Your task to perform on an android device: Clear the cart on bestbuy. Add "razer blade" to the cart on bestbuy, then select checkout. Image 0: 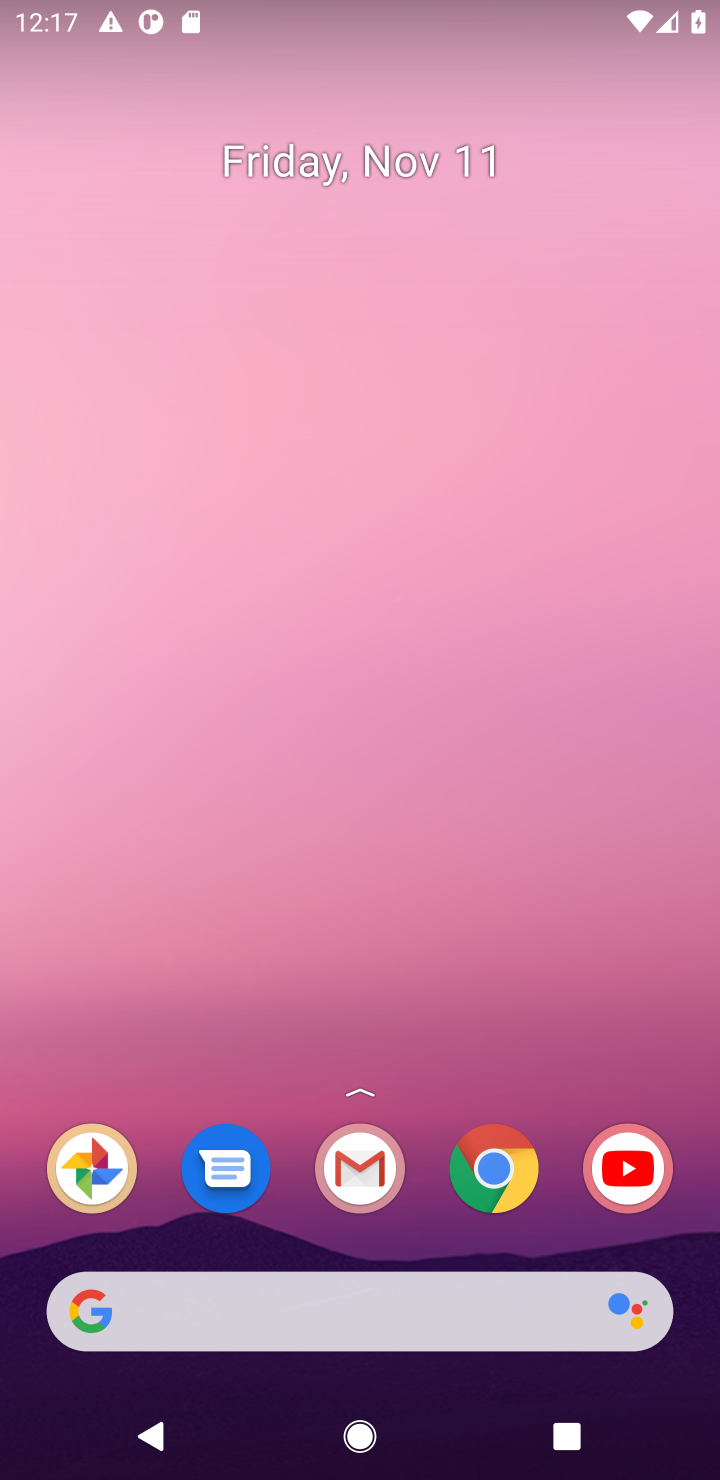
Step 0: click (492, 1179)
Your task to perform on an android device: Clear the cart on bestbuy. Add "razer blade" to the cart on bestbuy, then select checkout. Image 1: 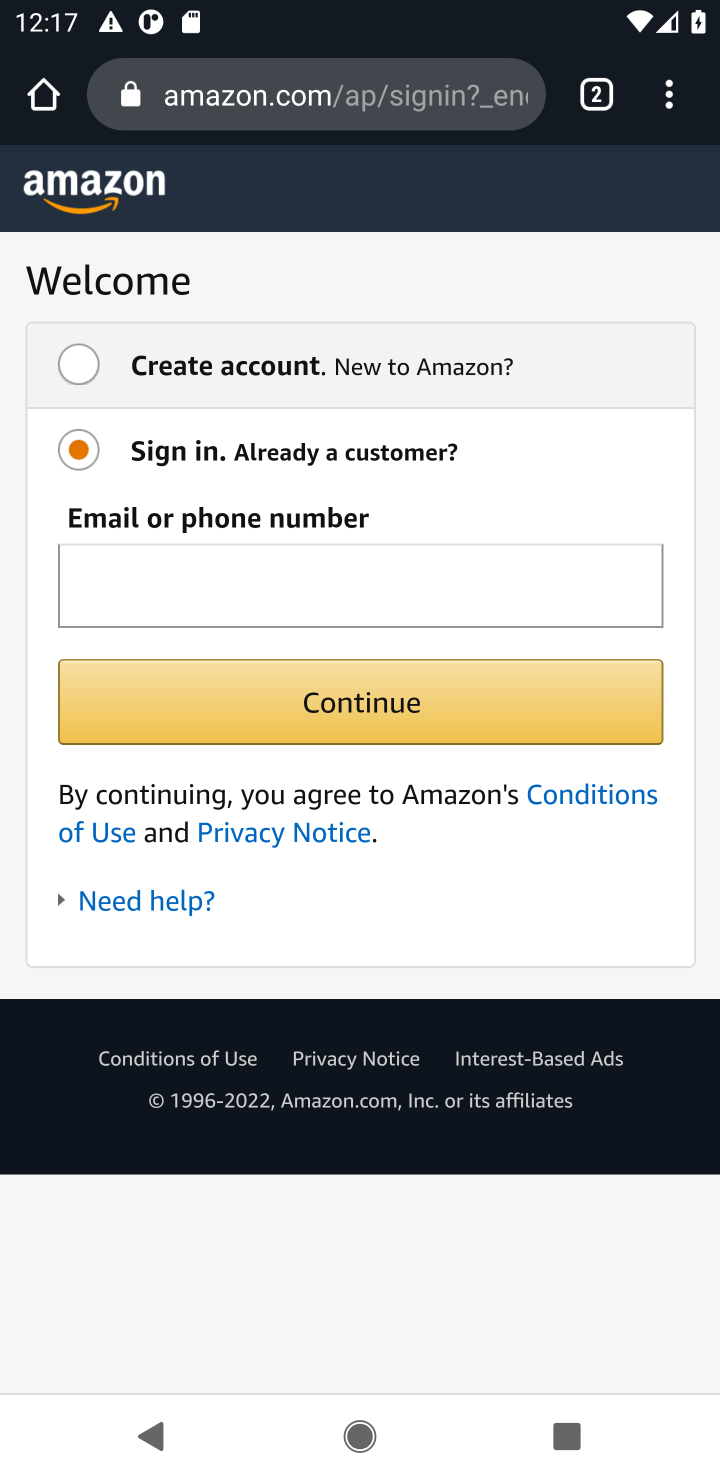
Step 1: click (299, 90)
Your task to perform on an android device: Clear the cart on bestbuy. Add "razer blade" to the cart on bestbuy, then select checkout. Image 2: 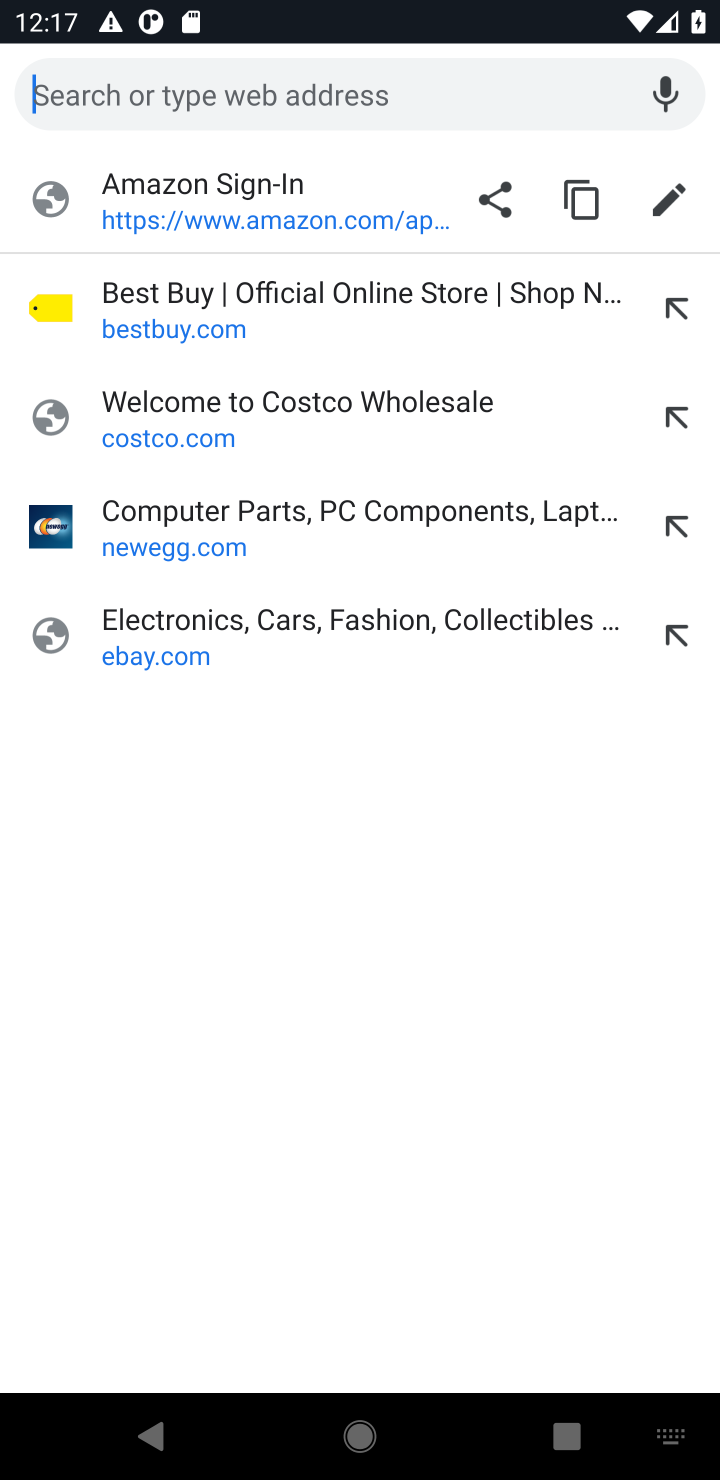
Step 2: click (166, 334)
Your task to perform on an android device: Clear the cart on bestbuy. Add "razer blade" to the cart on bestbuy, then select checkout. Image 3: 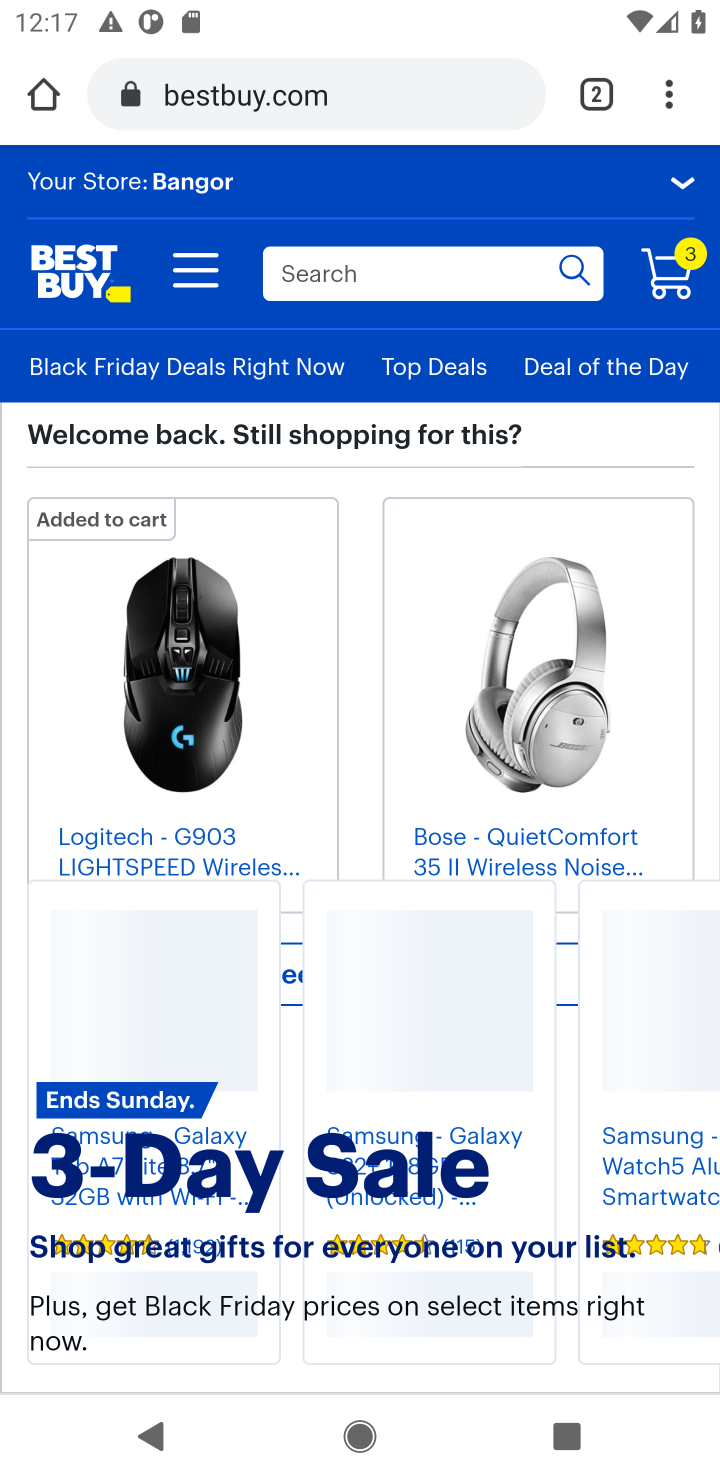
Step 3: click (678, 277)
Your task to perform on an android device: Clear the cart on bestbuy. Add "razer blade" to the cart on bestbuy, then select checkout. Image 4: 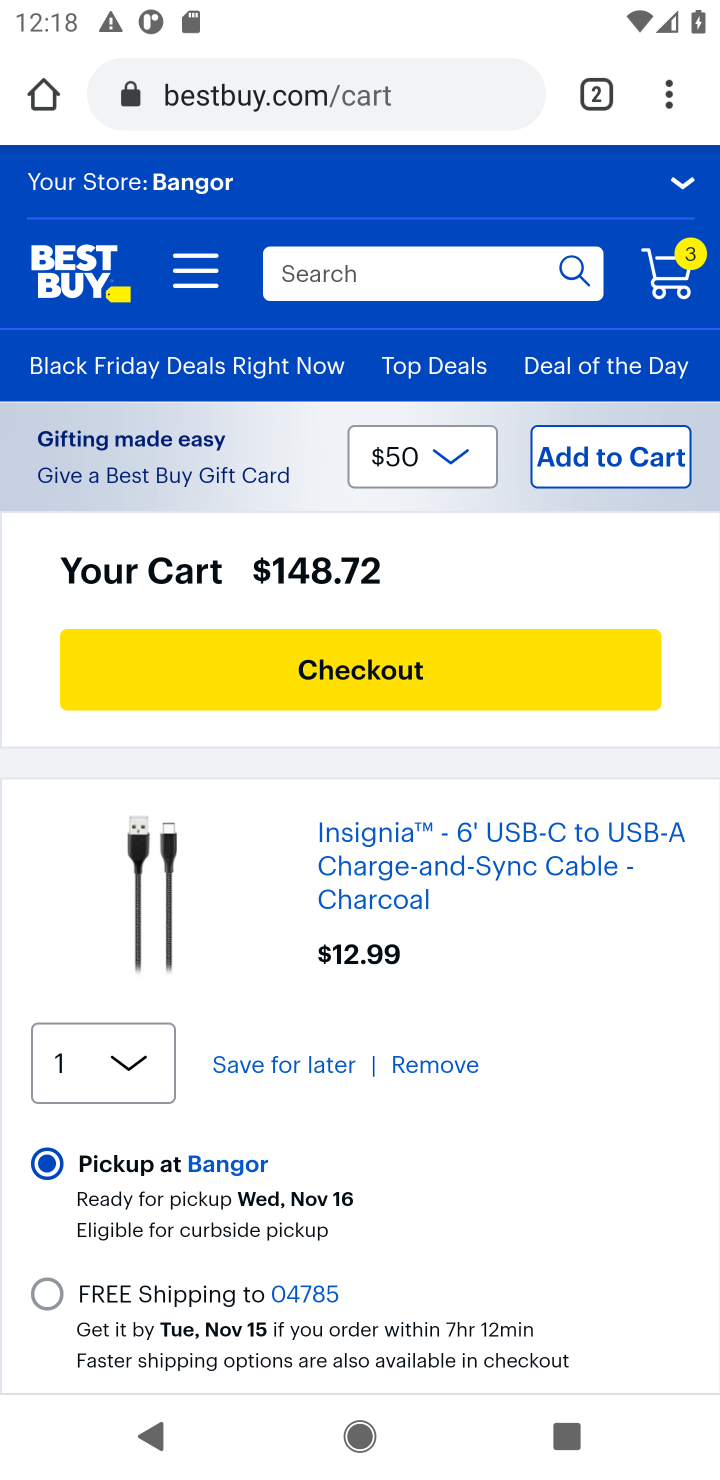
Step 4: click (426, 1071)
Your task to perform on an android device: Clear the cart on bestbuy. Add "razer blade" to the cart on bestbuy, then select checkout. Image 5: 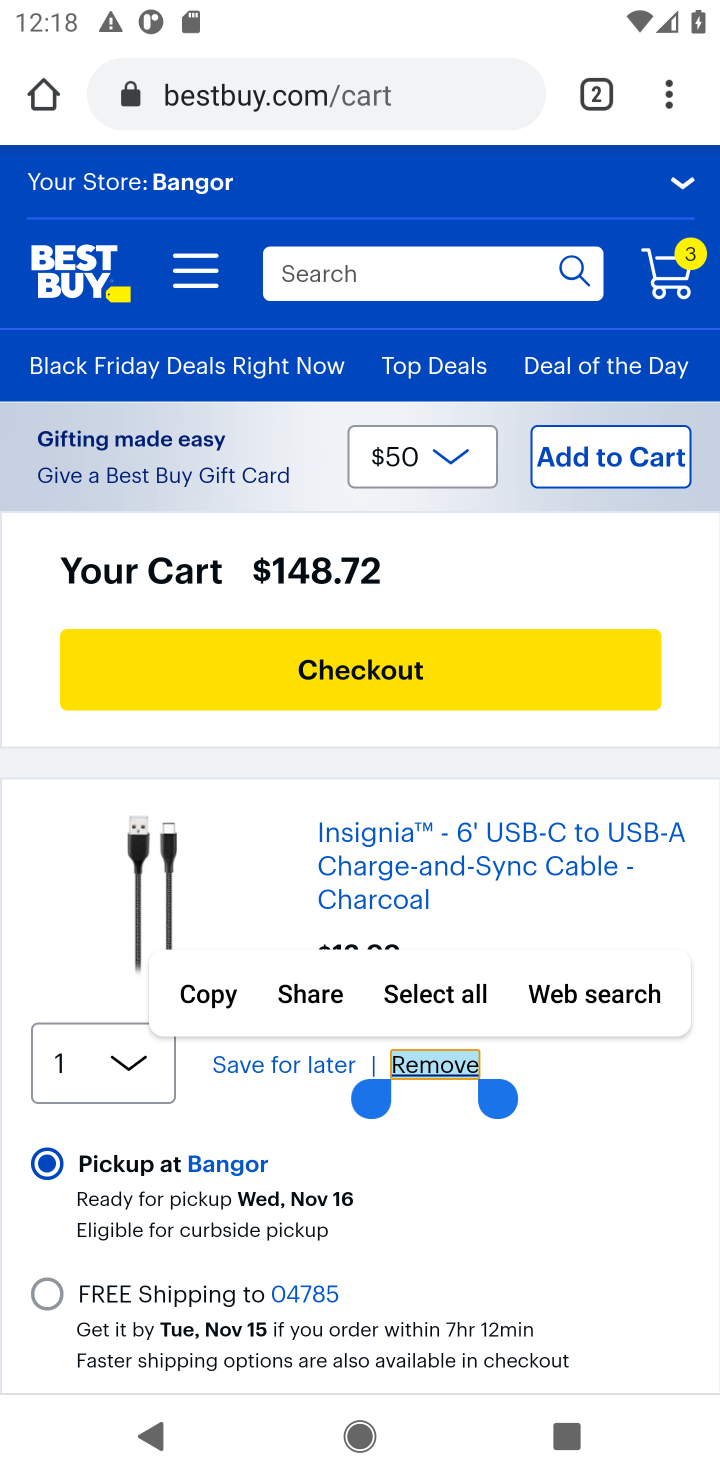
Step 5: click (426, 1071)
Your task to perform on an android device: Clear the cart on bestbuy. Add "razer blade" to the cart on bestbuy, then select checkout. Image 6: 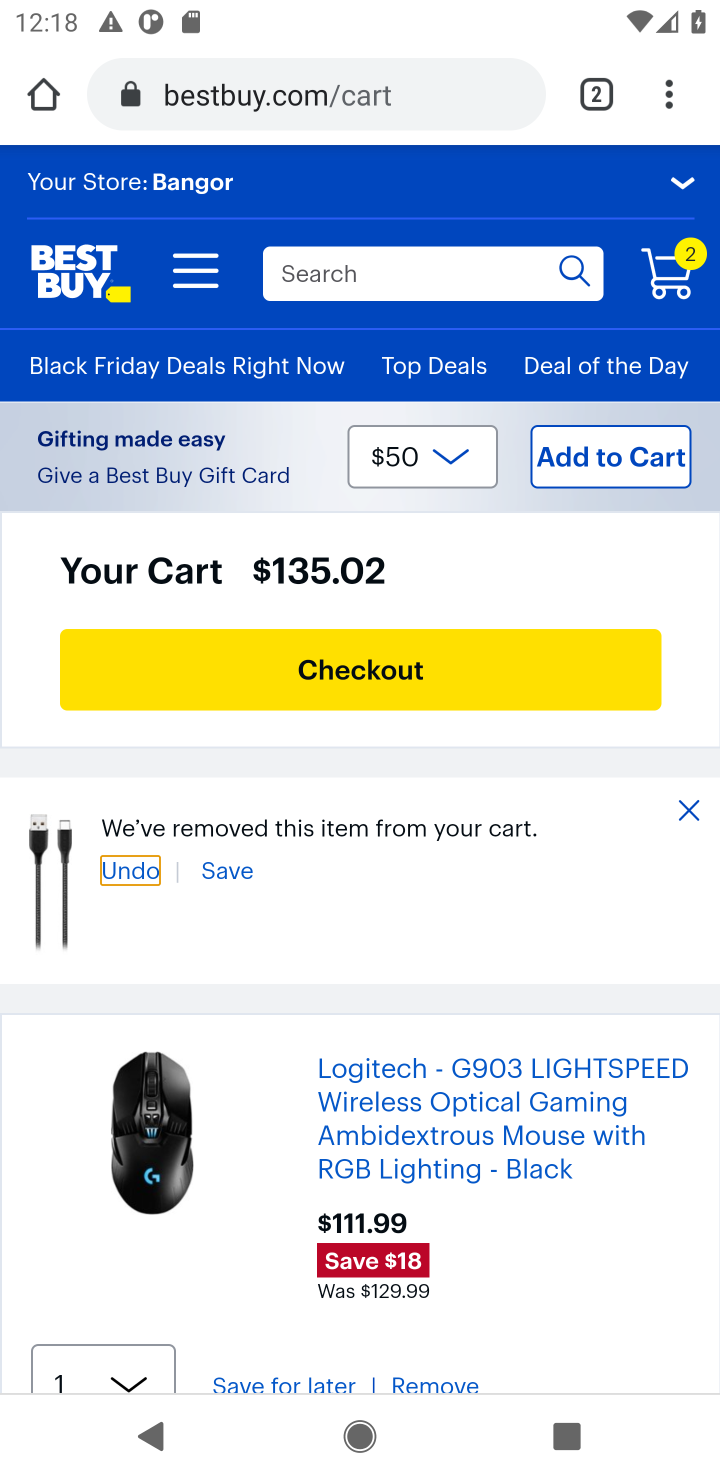
Step 6: drag from (297, 890) to (299, 423)
Your task to perform on an android device: Clear the cart on bestbuy. Add "razer blade" to the cart on bestbuy, then select checkout. Image 7: 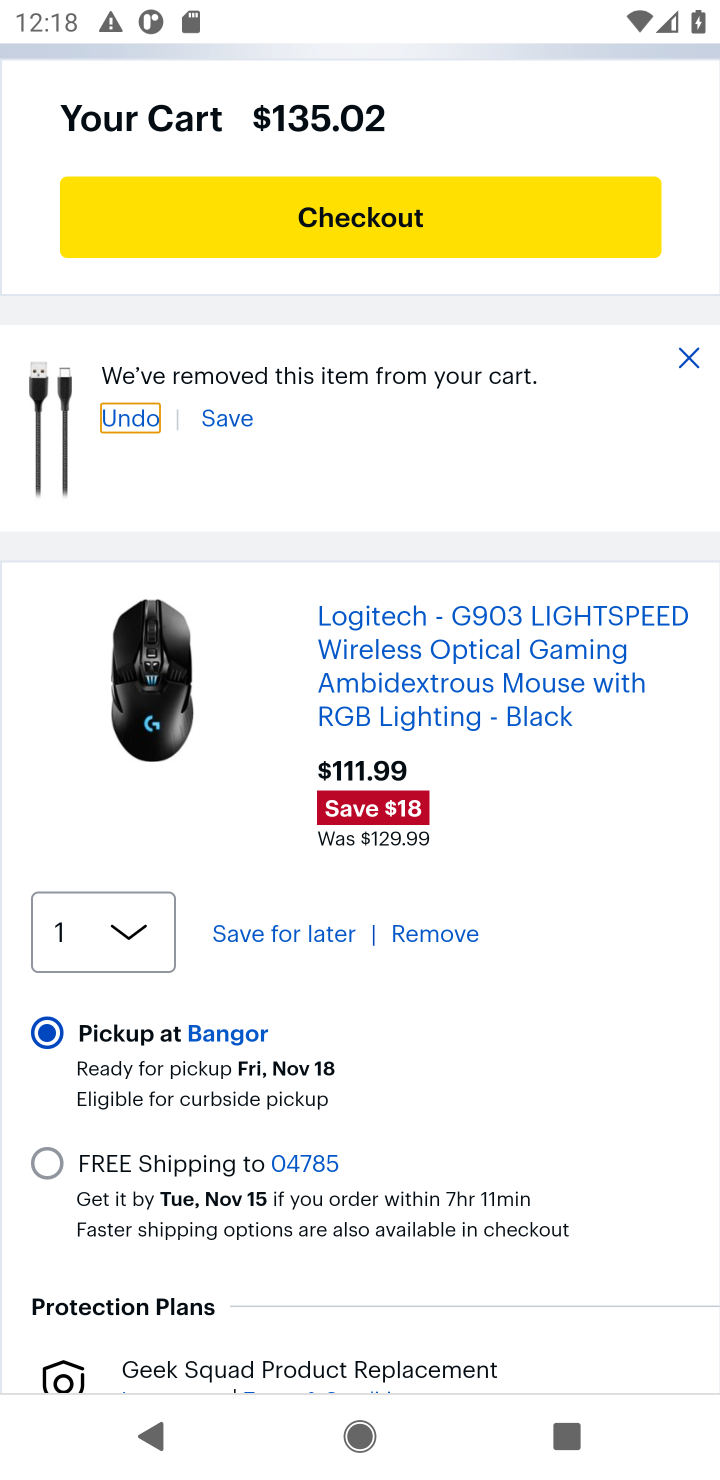
Step 7: click (416, 940)
Your task to perform on an android device: Clear the cart on bestbuy. Add "razer blade" to the cart on bestbuy, then select checkout. Image 8: 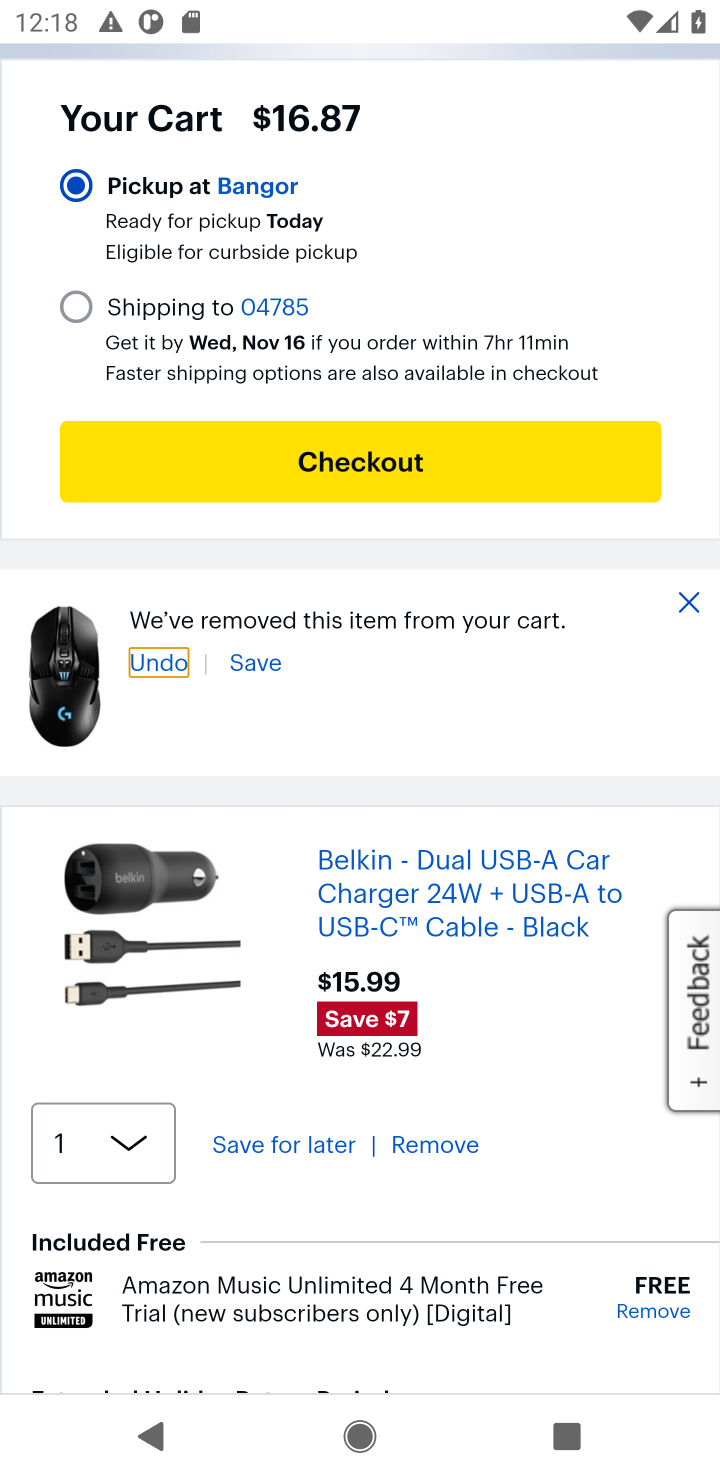
Step 8: click (426, 1153)
Your task to perform on an android device: Clear the cart on bestbuy. Add "razer blade" to the cart on bestbuy, then select checkout. Image 9: 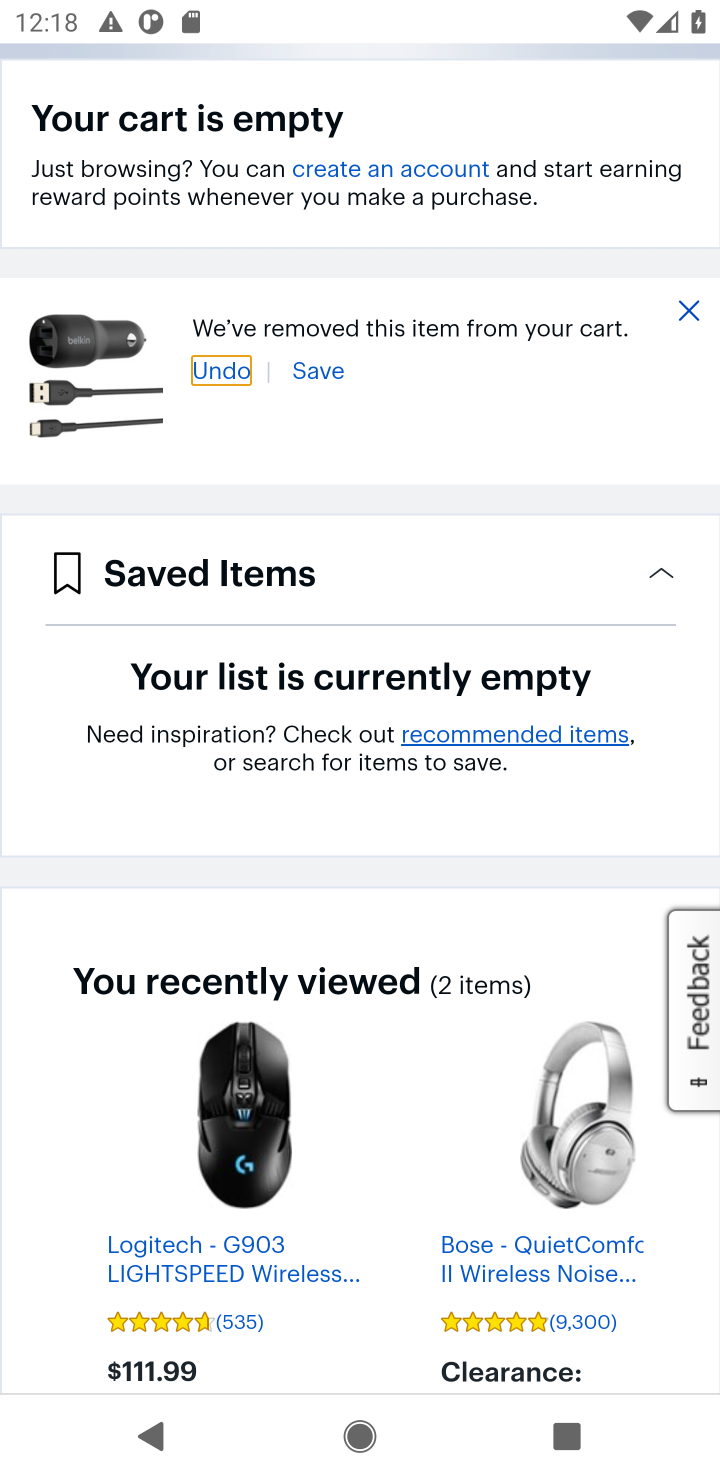
Step 9: drag from (513, 812) to (493, 915)
Your task to perform on an android device: Clear the cart on bestbuy. Add "razer blade" to the cart on bestbuy, then select checkout. Image 10: 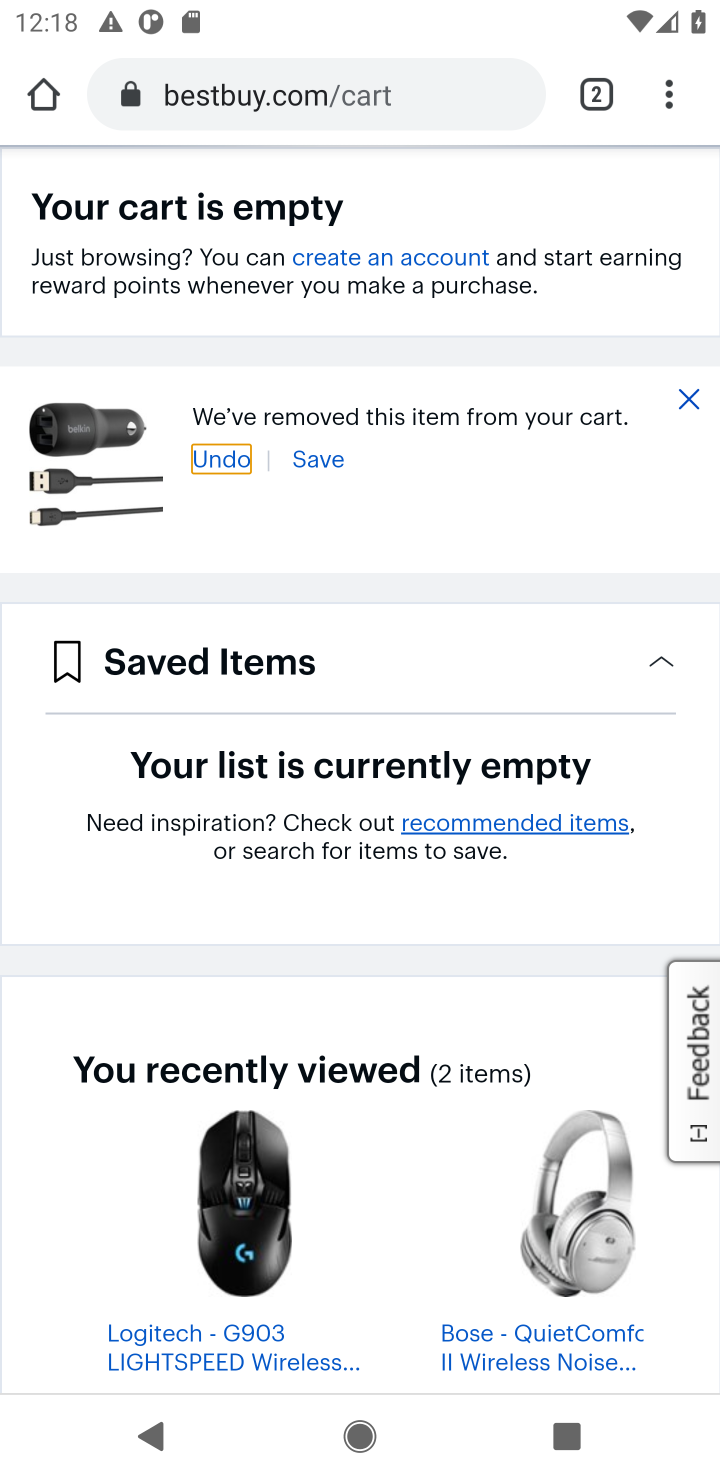
Step 10: drag from (371, 268) to (380, 539)
Your task to perform on an android device: Clear the cart on bestbuy. Add "razer blade" to the cart on bestbuy, then select checkout. Image 11: 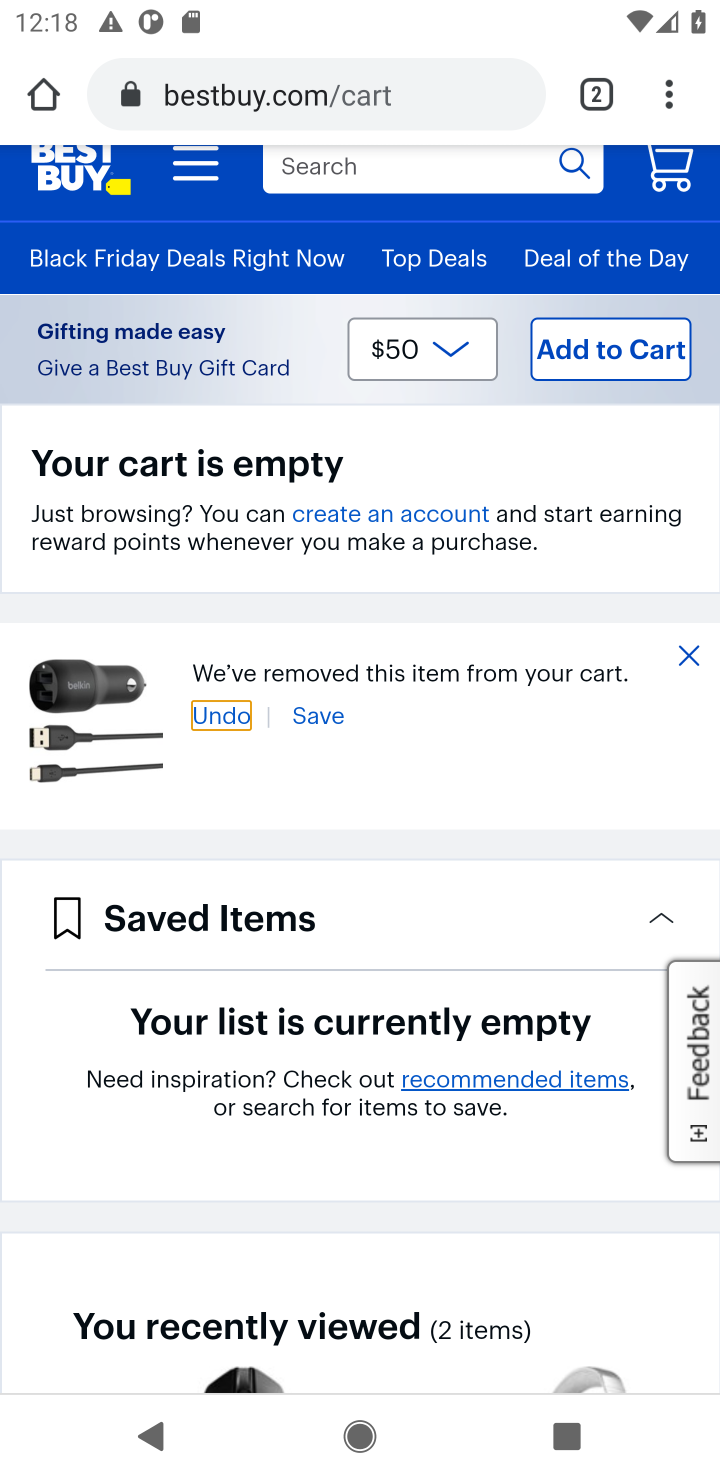
Step 11: drag from (361, 219) to (382, 400)
Your task to perform on an android device: Clear the cart on bestbuy. Add "razer blade" to the cart on bestbuy, then select checkout. Image 12: 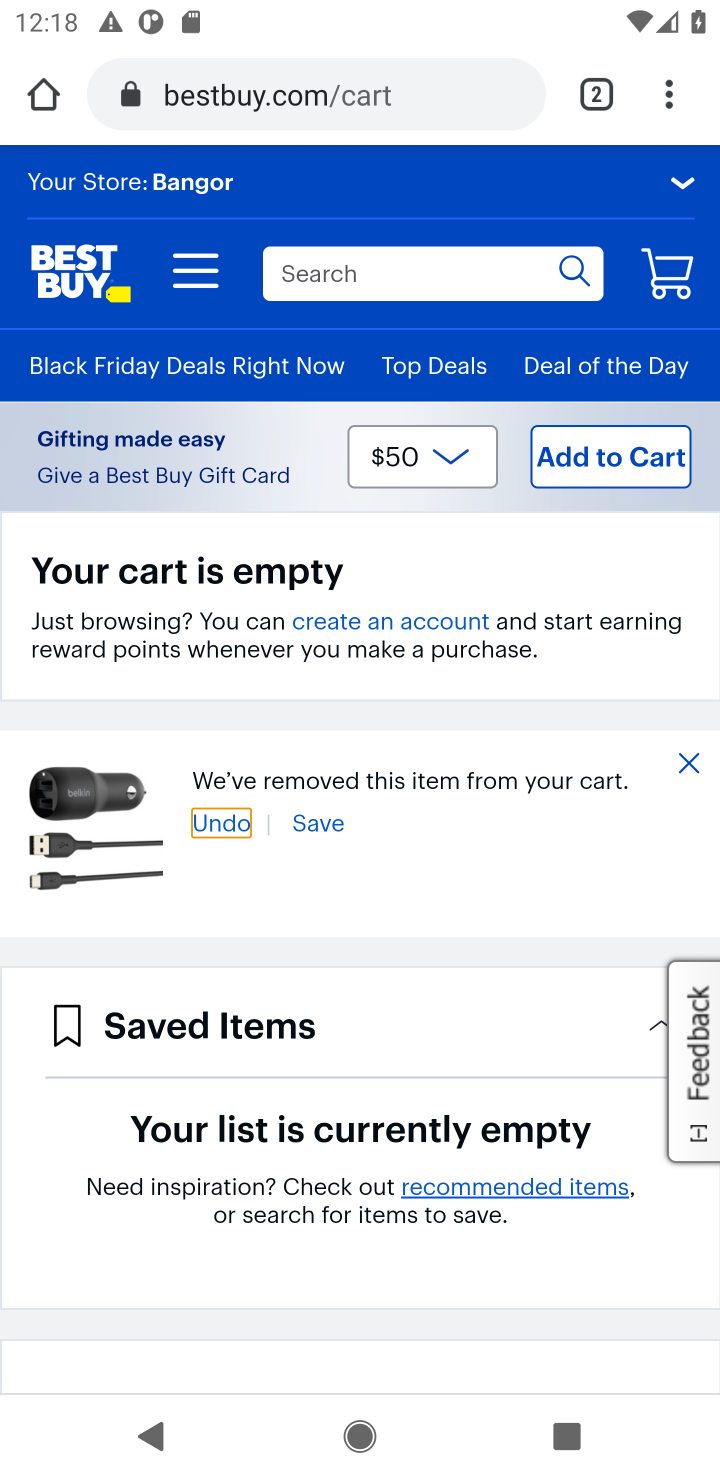
Step 12: click (336, 274)
Your task to perform on an android device: Clear the cart on bestbuy. Add "razer blade" to the cart on bestbuy, then select checkout. Image 13: 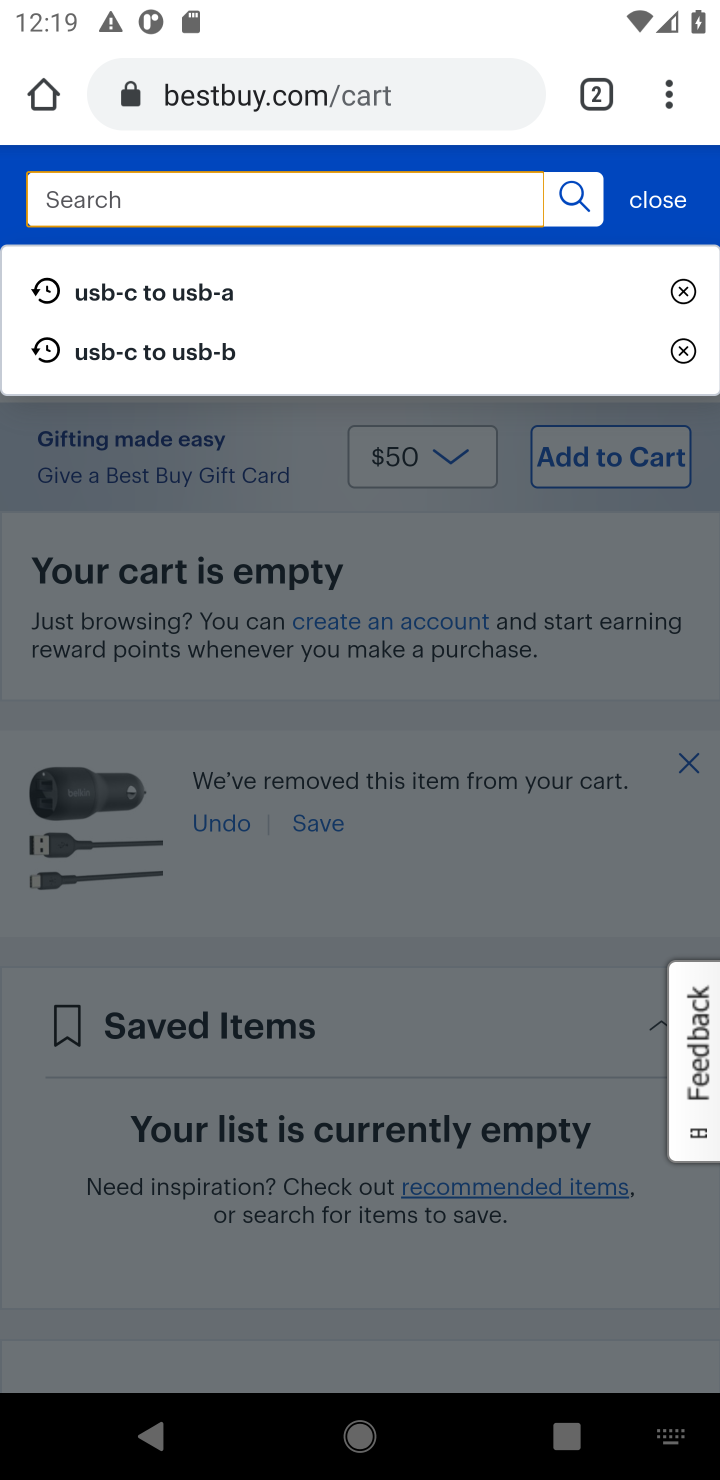
Step 13: type "razer blade"
Your task to perform on an android device: Clear the cart on bestbuy. Add "razer blade" to the cart on bestbuy, then select checkout. Image 14: 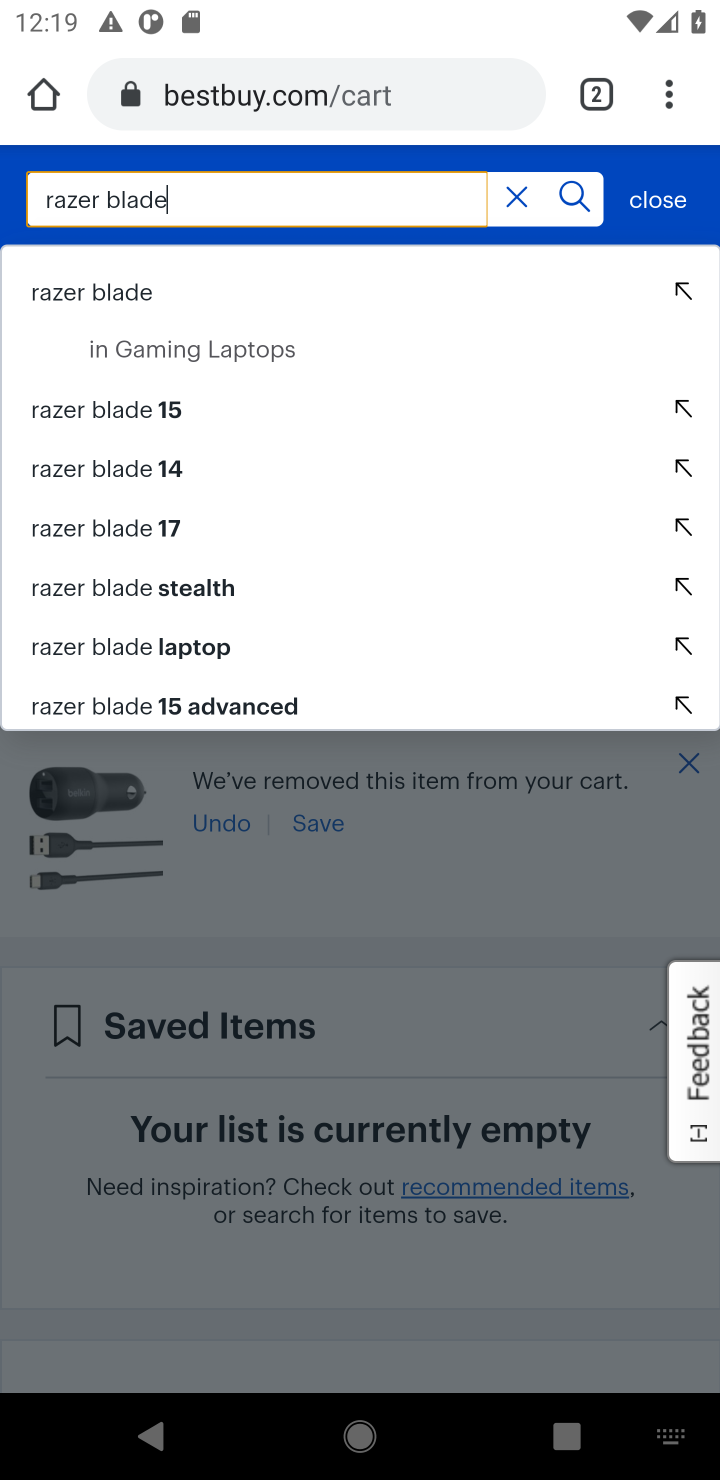
Step 14: click (81, 297)
Your task to perform on an android device: Clear the cart on bestbuy. Add "razer blade" to the cart on bestbuy, then select checkout. Image 15: 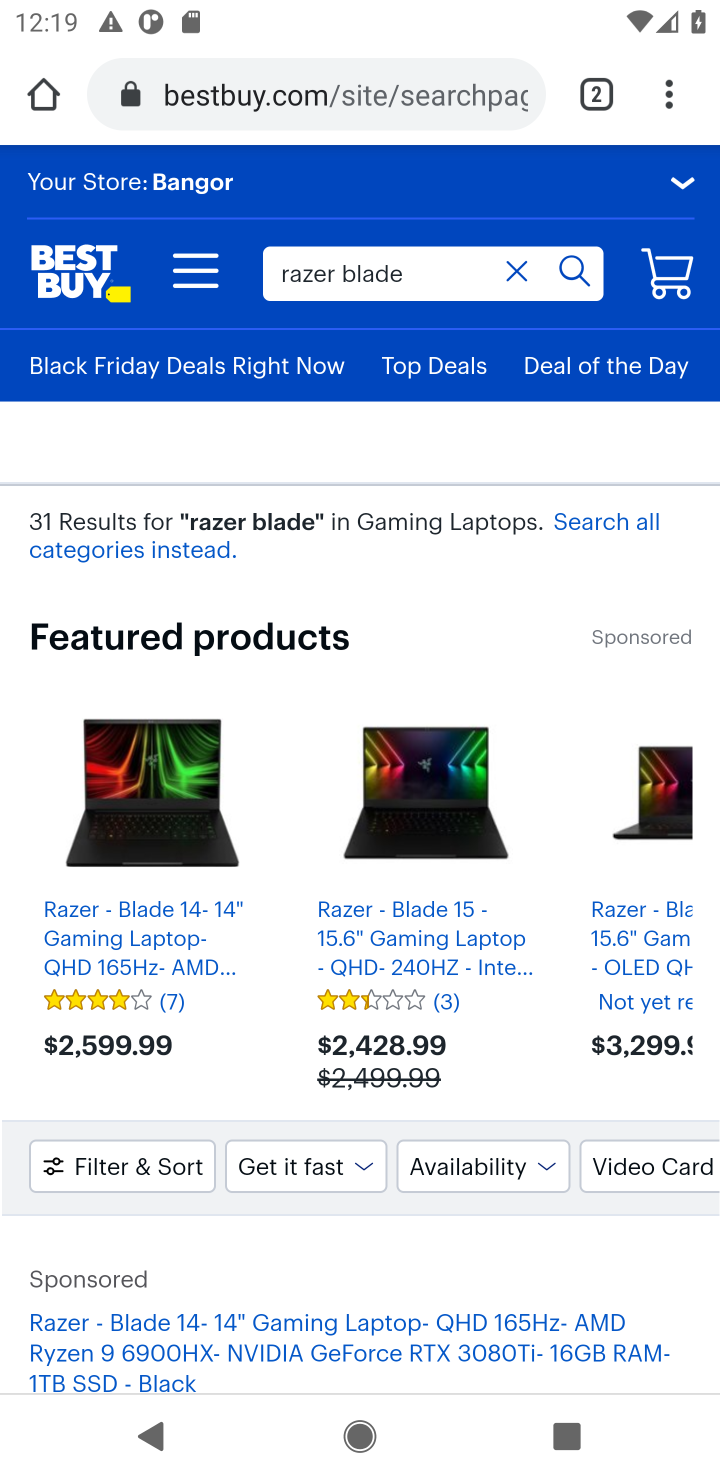
Step 15: drag from (216, 1034) to (230, 609)
Your task to perform on an android device: Clear the cart on bestbuy. Add "razer blade" to the cart on bestbuy, then select checkout. Image 16: 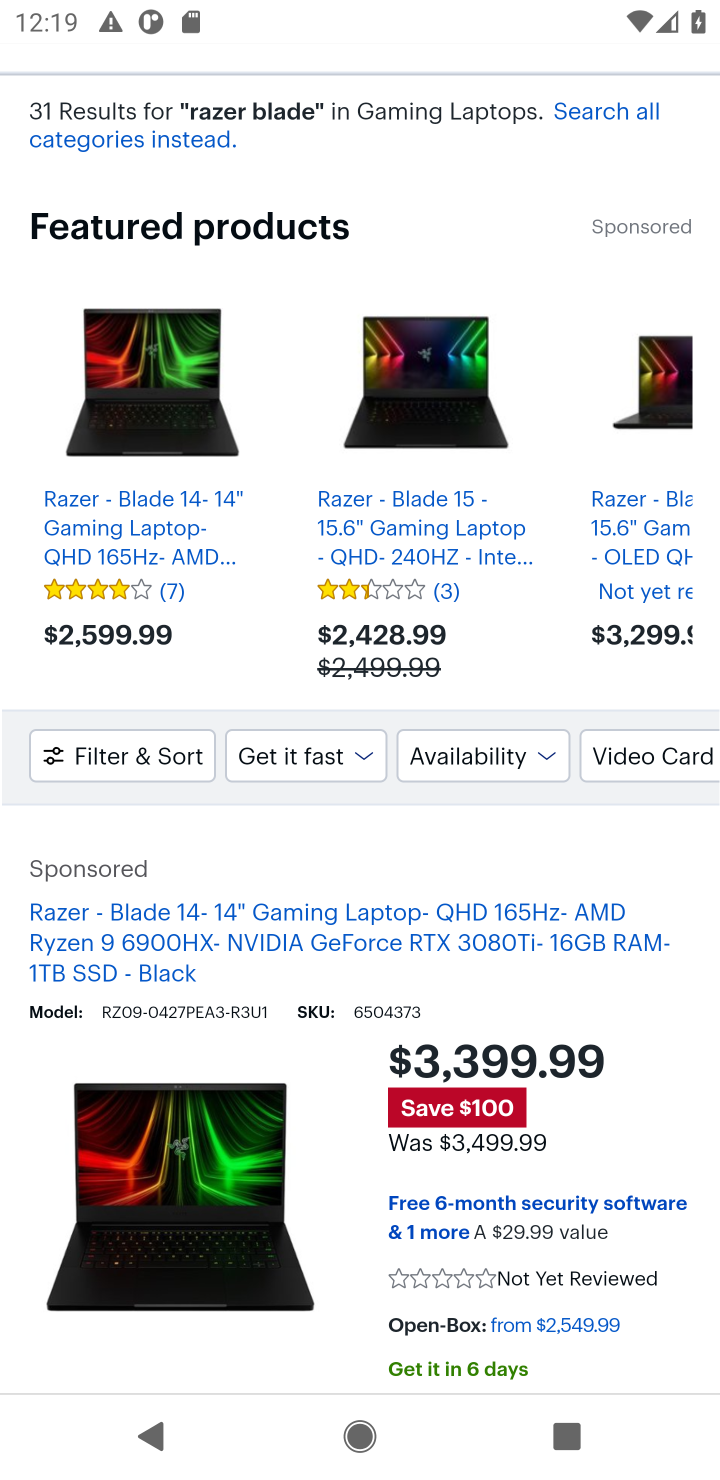
Step 16: click (112, 1183)
Your task to perform on an android device: Clear the cart on bestbuy. Add "razer blade" to the cart on bestbuy, then select checkout. Image 17: 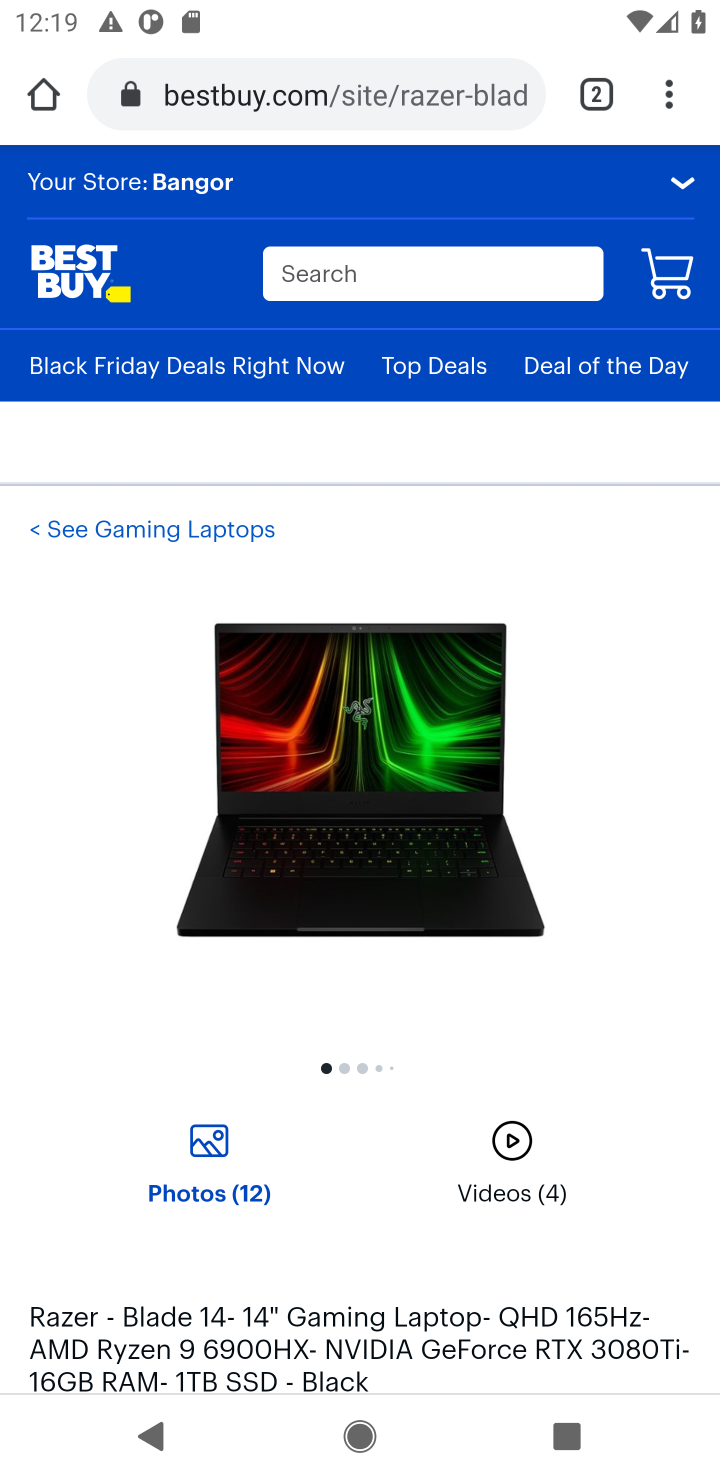
Step 17: drag from (336, 1187) to (328, 630)
Your task to perform on an android device: Clear the cart on bestbuy. Add "razer blade" to the cart on bestbuy, then select checkout. Image 18: 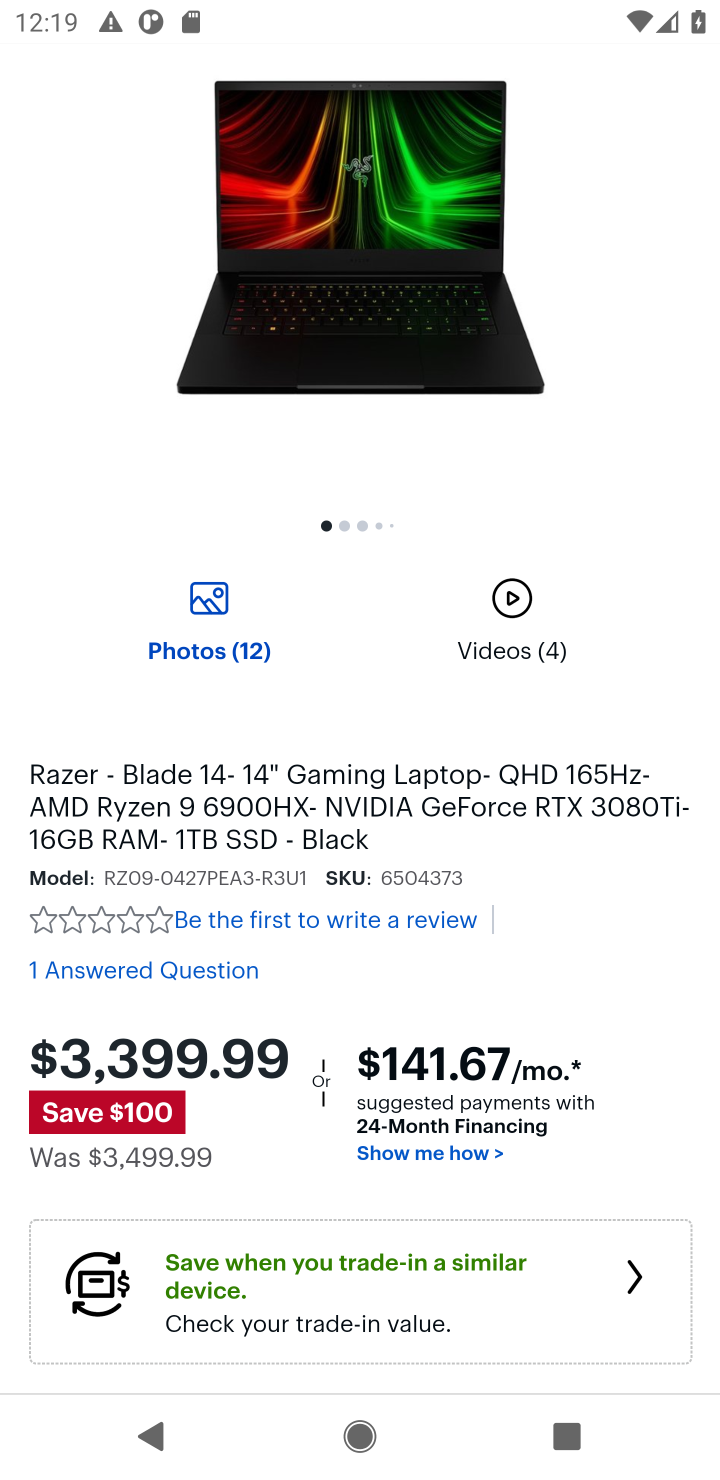
Step 18: drag from (353, 1081) to (394, 387)
Your task to perform on an android device: Clear the cart on bestbuy. Add "razer blade" to the cart on bestbuy, then select checkout. Image 19: 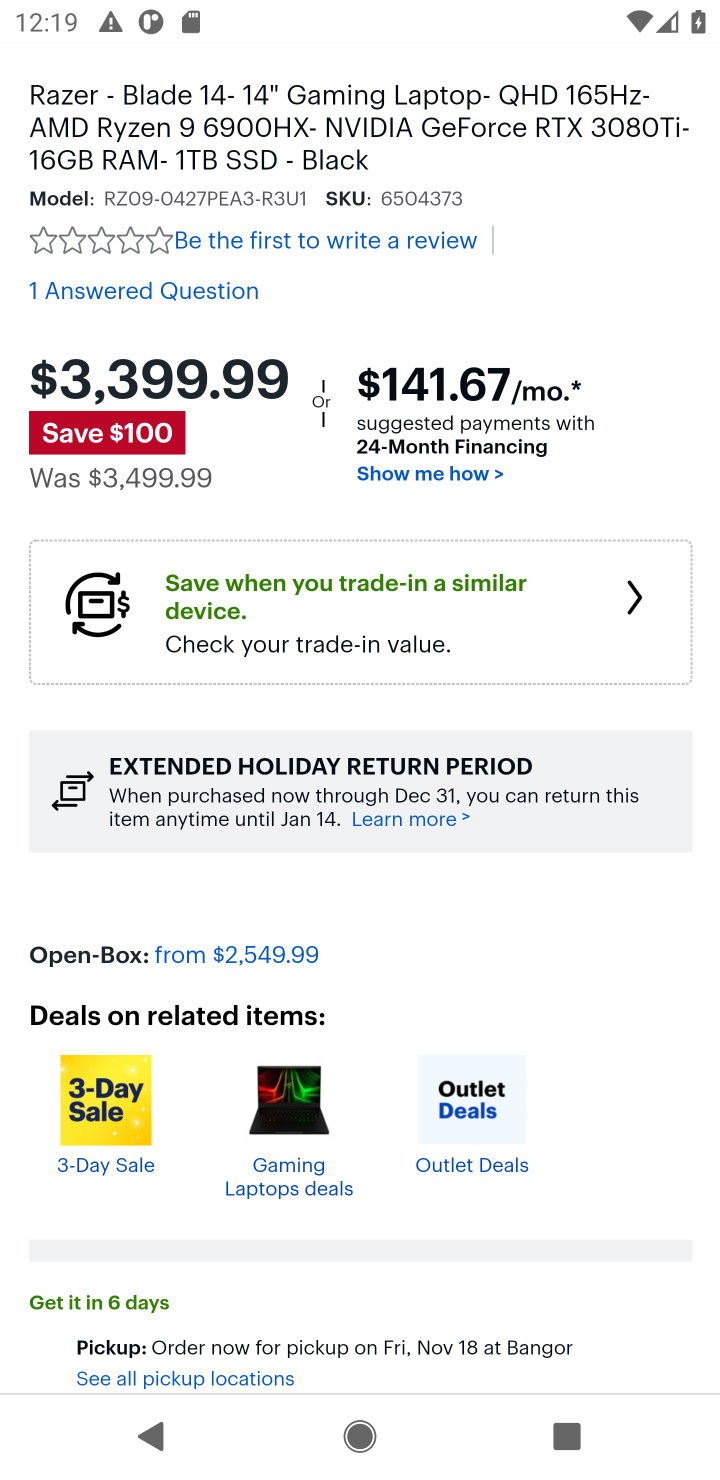
Step 19: drag from (349, 982) to (324, 354)
Your task to perform on an android device: Clear the cart on bestbuy. Add "razer blade" to the cart on bestbuy, then select checkout. Image 20: 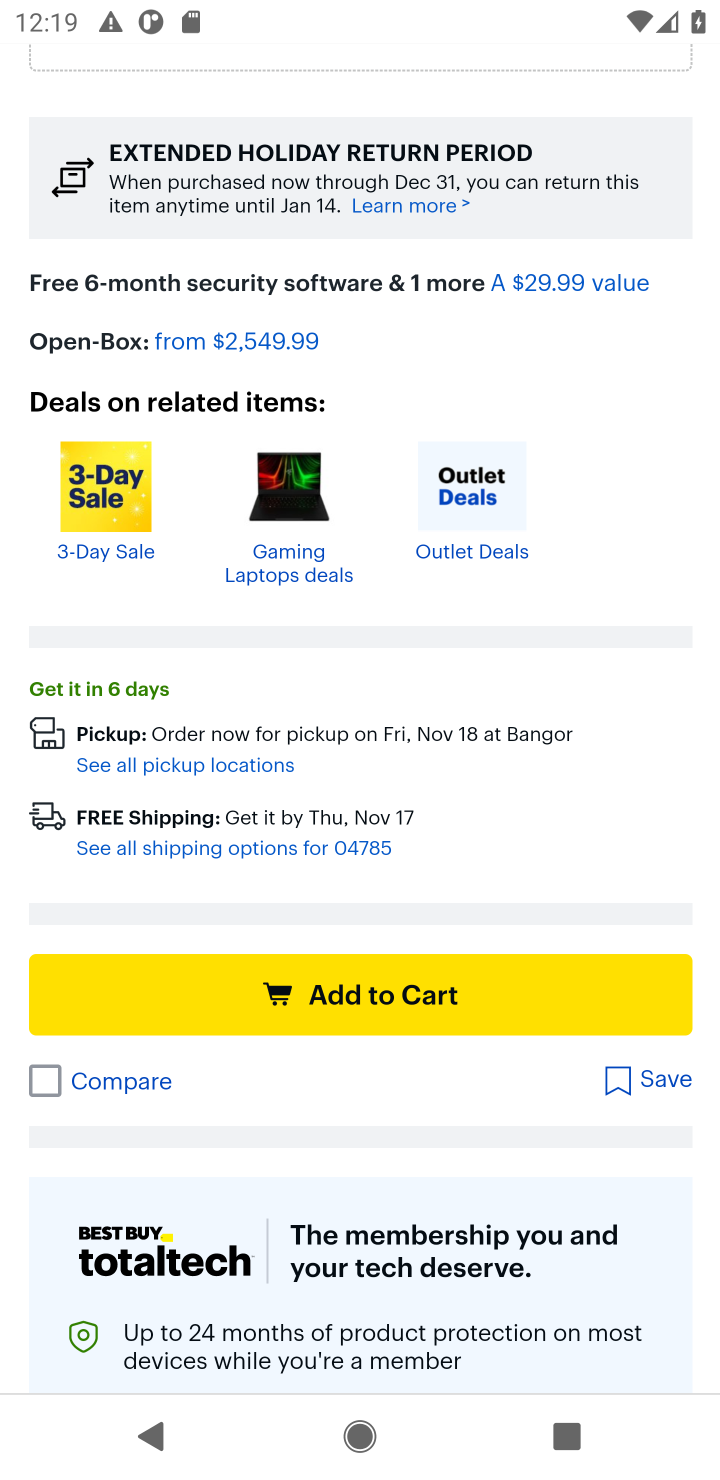
Step 20: click (351, 928)
Your task to perform on an android device: Clear the cart on bestbuy. Add "razer blade" to the cart on bestbuy, then select checkout. Image 21: 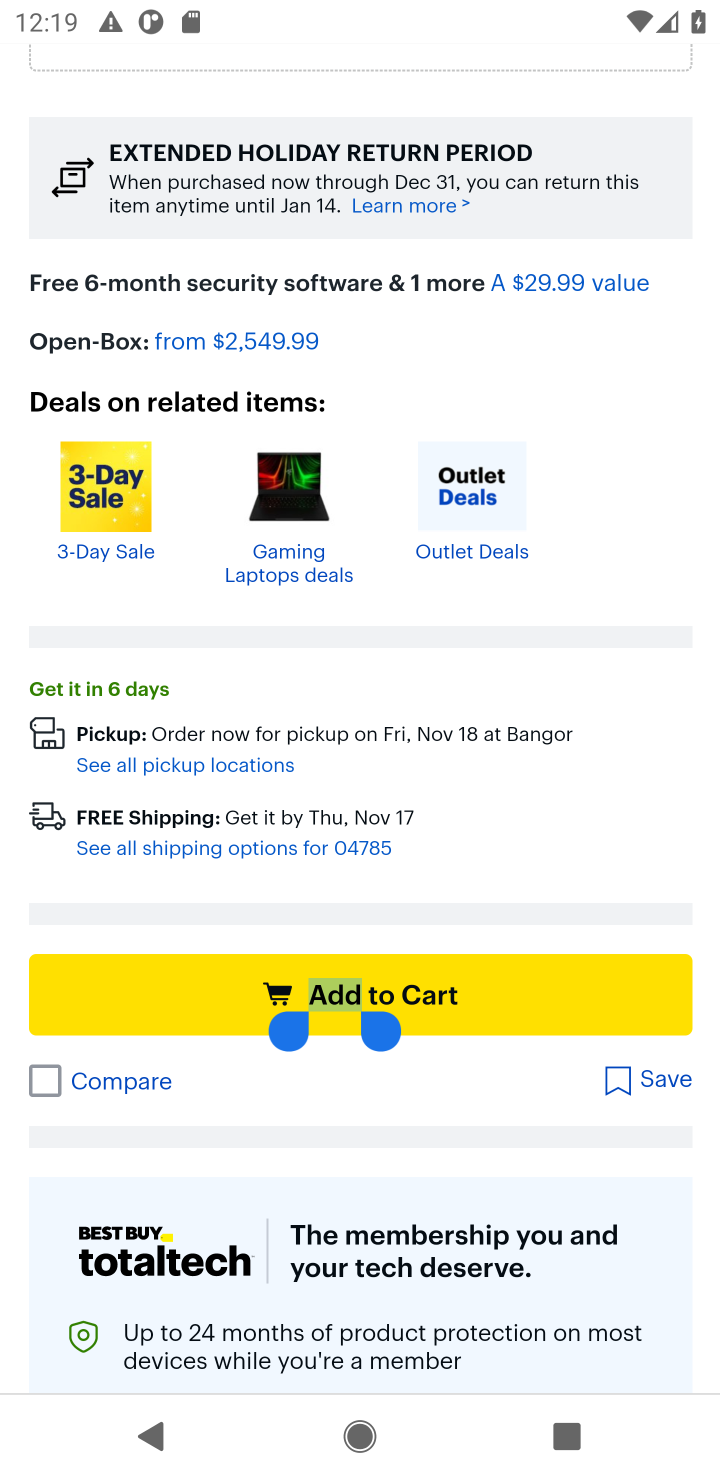
Step 21: click (345, 961)
Your task to perform on an android device: Clear the cart on bestbuy. Add "razer blade" to the cart on bestbuy, then select checkout. Image 22: 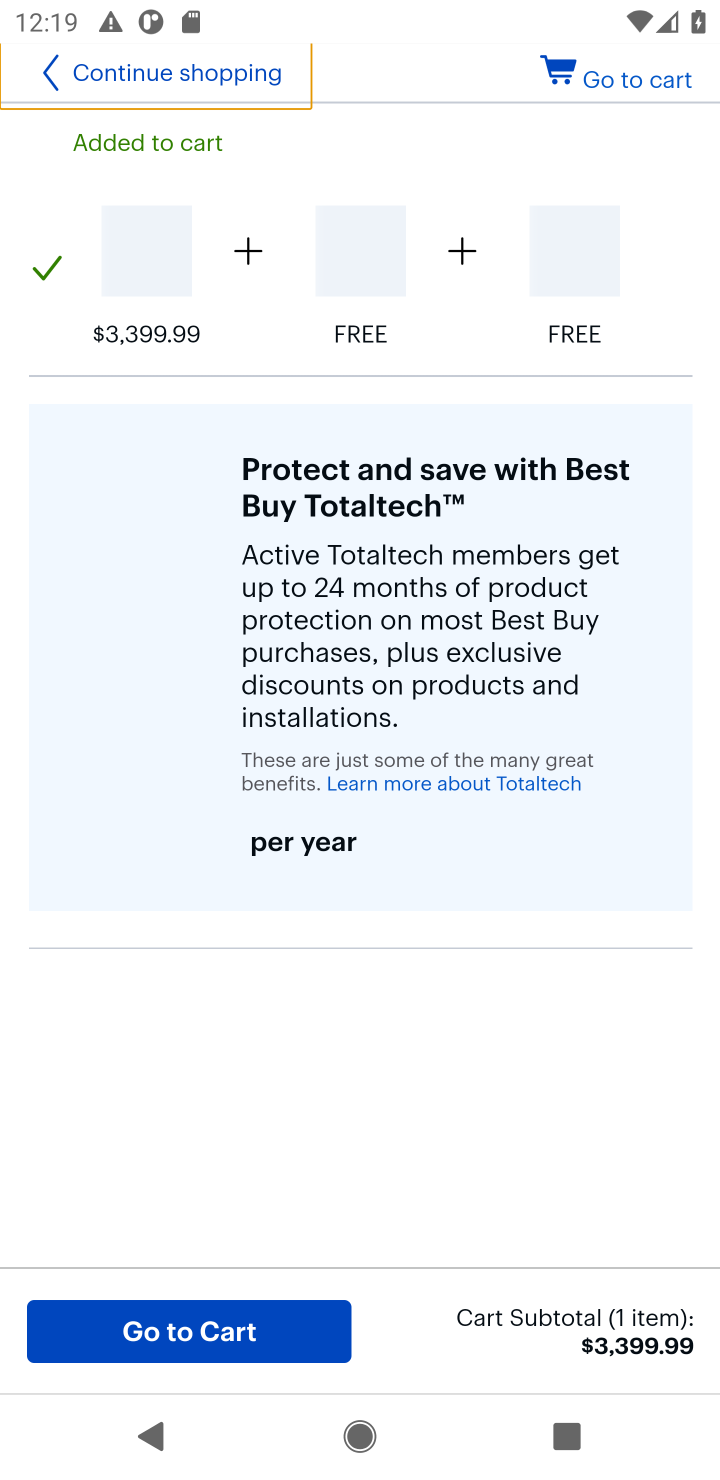
Step 22: click (643, 76)
Your task to perform on an android device: Clear the cart on bestbuy. Add "razer blade" to the cart on bestbuy, then select checkout. Image 23: 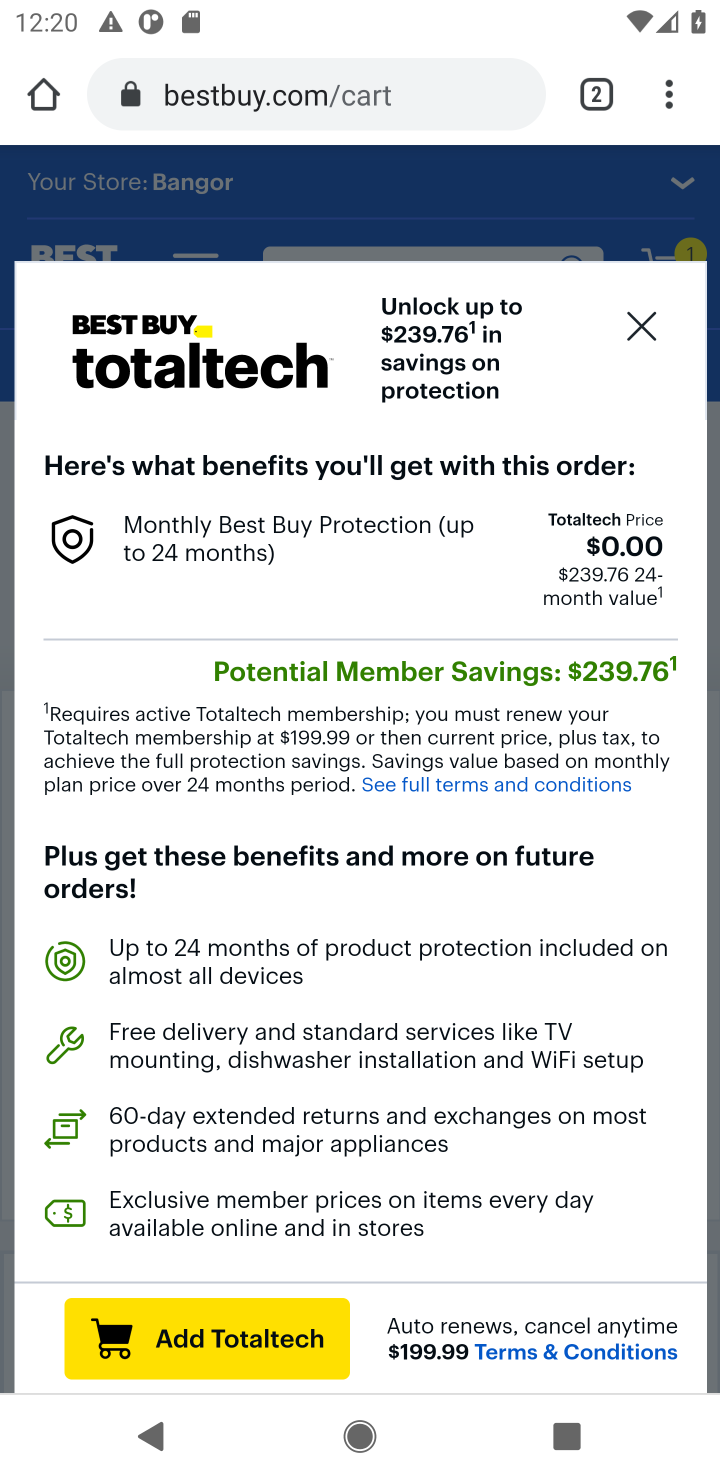
Step 23: click (634, 341)
Your task to perform on an android device: Clear the cart on bestbuy. Add "razer blade" to the cart on bestbuy, then select checkout. Image 24: 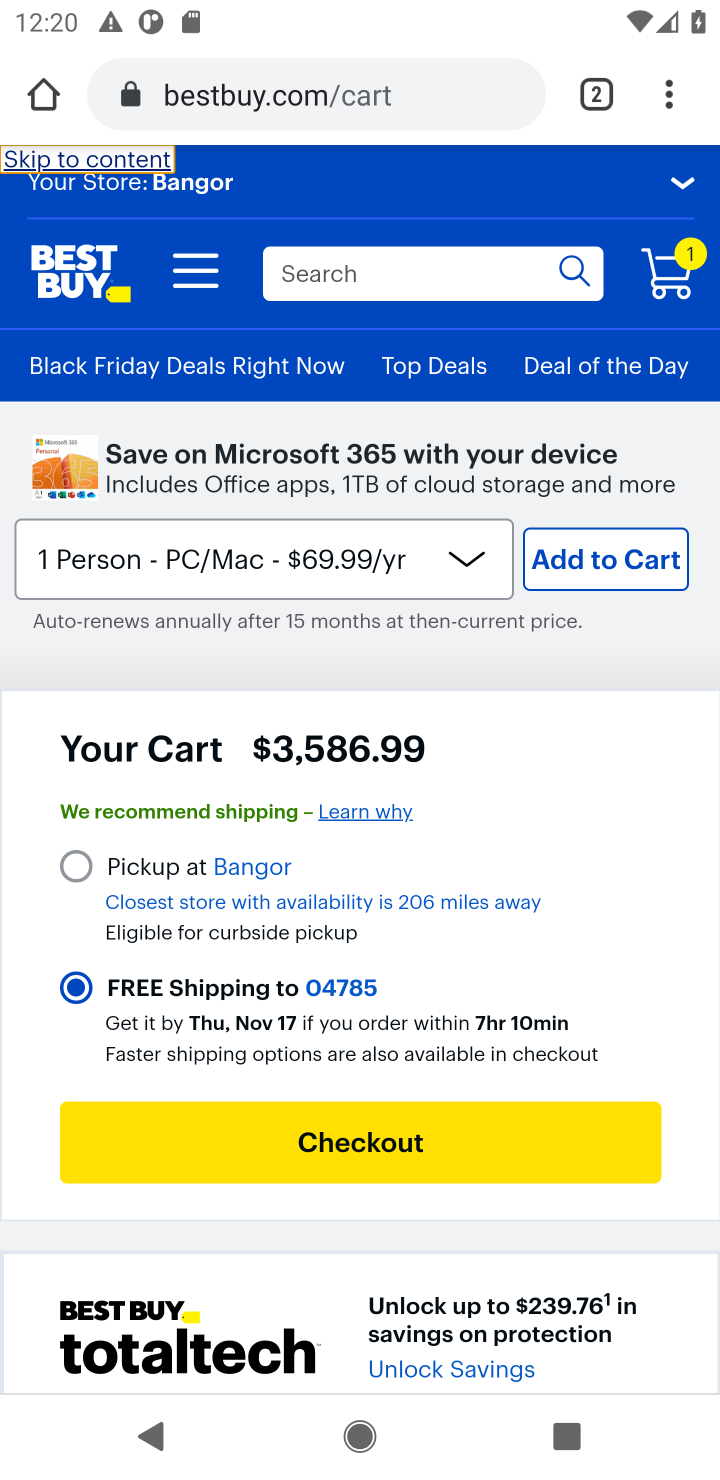
Step 24: click (393, 1141)
Your task to perform on an android device: Clear the cart on bestbuy. Add "razer blade" to the cart on bestbuy, then select checkout. Image 25: 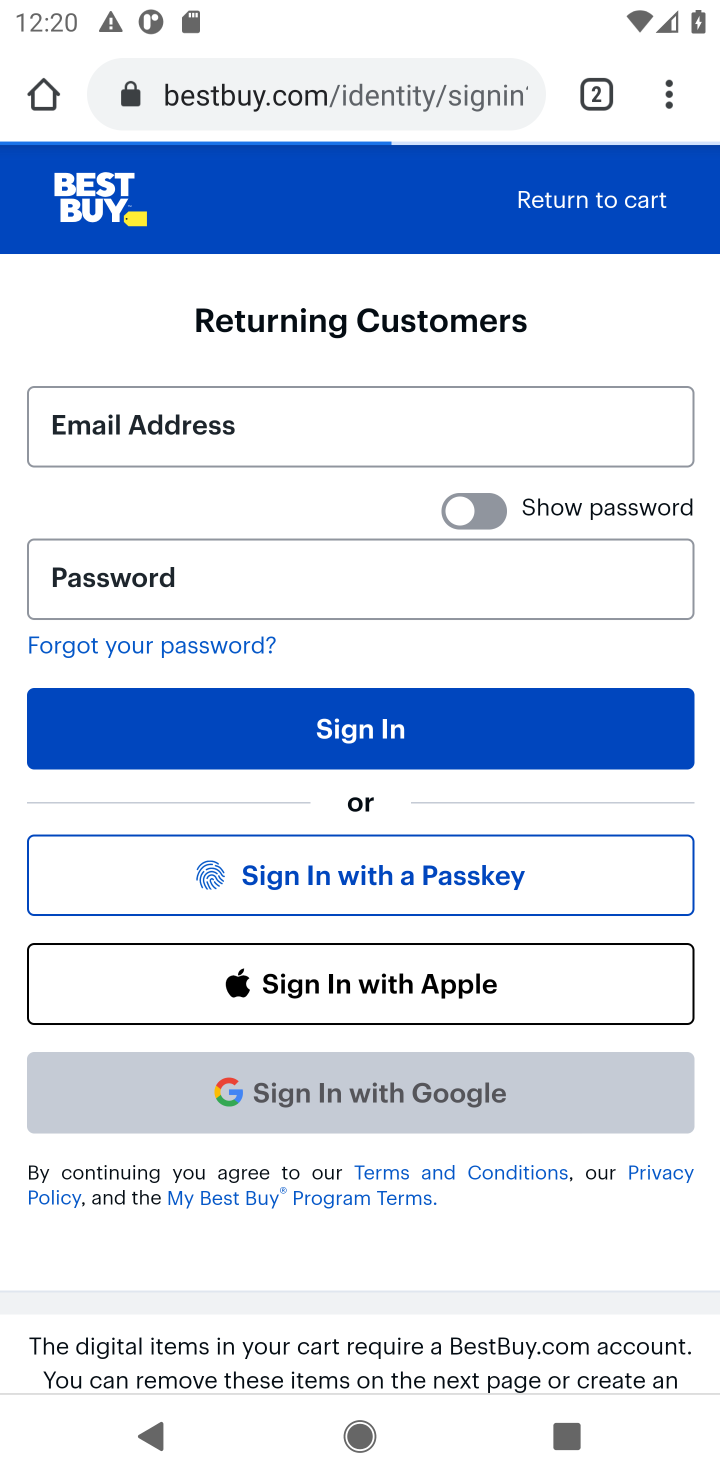
Step 25: task complete